Your task to perform on an android device: Search for seafood restaurants on Google Maps Image 0: 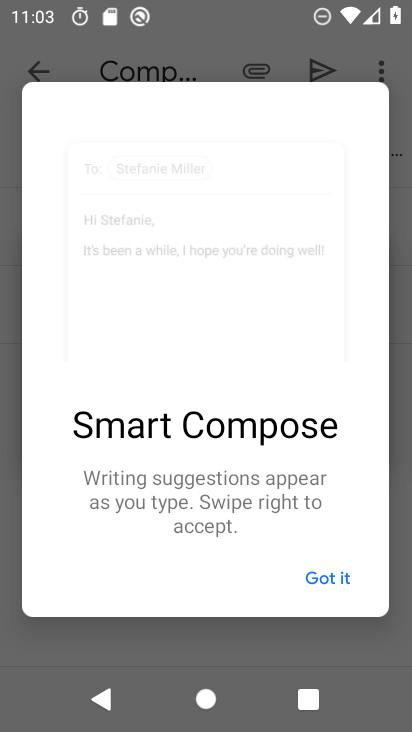
Step 0: press home button
Your task to perform on an android device: Search for seafood restaurants on Google Maps Image 1: 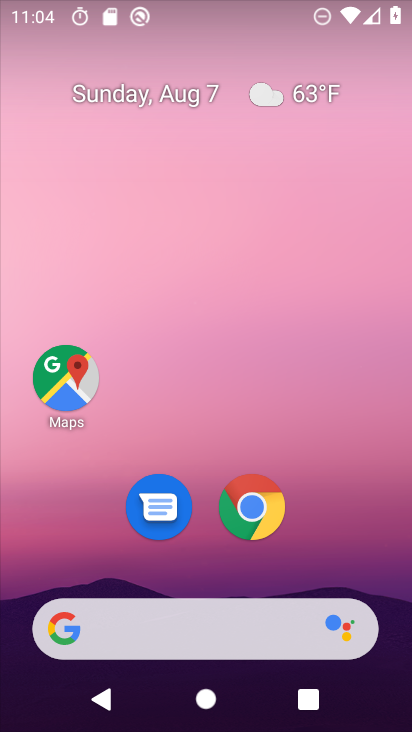
Step 1: drag from (350, 502) to (249, 27)
Your task to perform on an android device: Search for seafood restaurants on Google Maps Image 2: 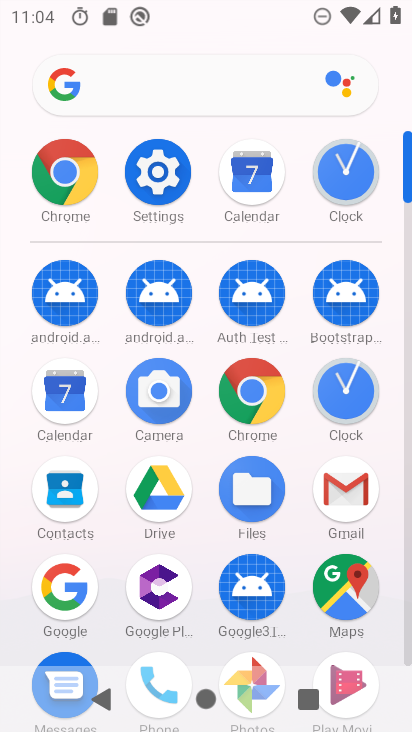
Step 2: click (337, 588)
Your task to perform on an android device: Search for seafood restaurants on Google Maps Image 3: 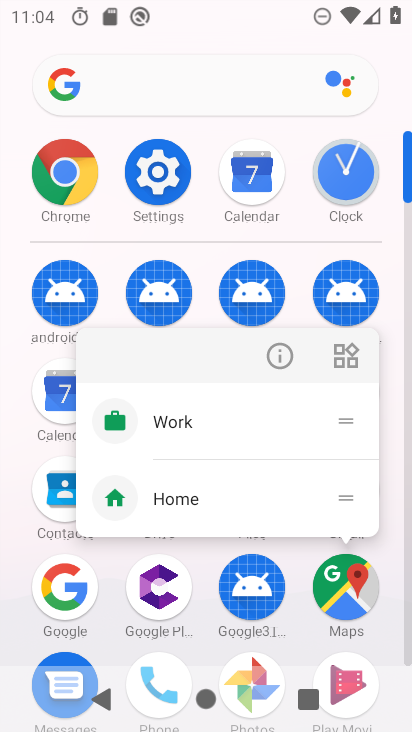
Step 3: click (355, 579)
Your task to perform on an android device: Search for seafood restaurants on Google Maps Image 4: 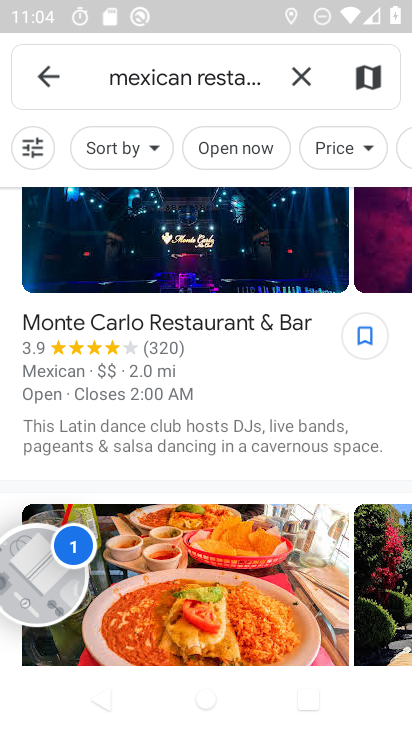
Step 4: click (307, 69)
Your task to perform on an android device: Search for seafood restaurants on Google Maps Image 5: 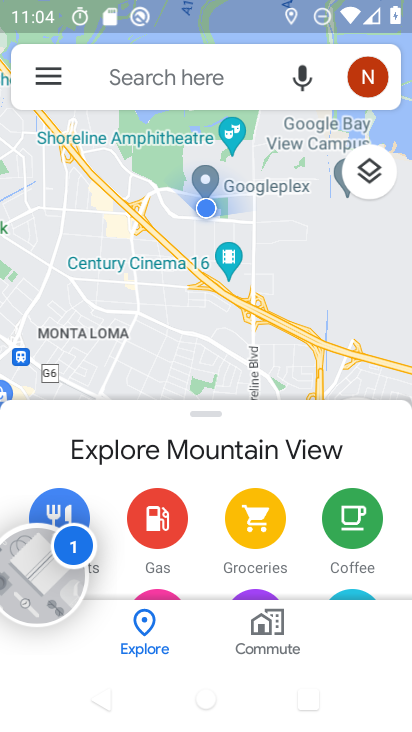
Step 5: click (234, 71)
Your task to perform on an android device: Search for seafood restaurants on Google Maps Image 6: 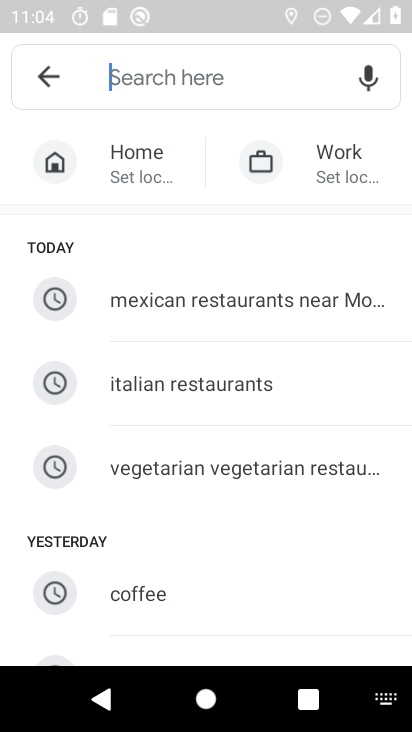
Step 6: type "seafood restaurants"
Your task to perform on an android device: Search for seafood restaurants on Google Maps Image 7: 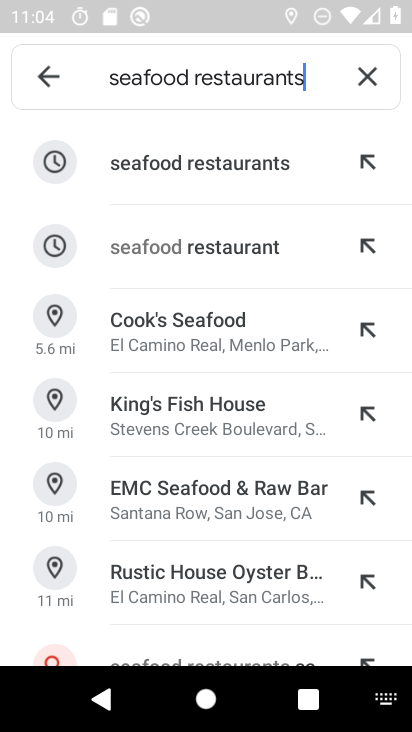
Step 7: type " "
Your task to perform on an android device: Search for seafood restaurants on Google Maps Image 8: 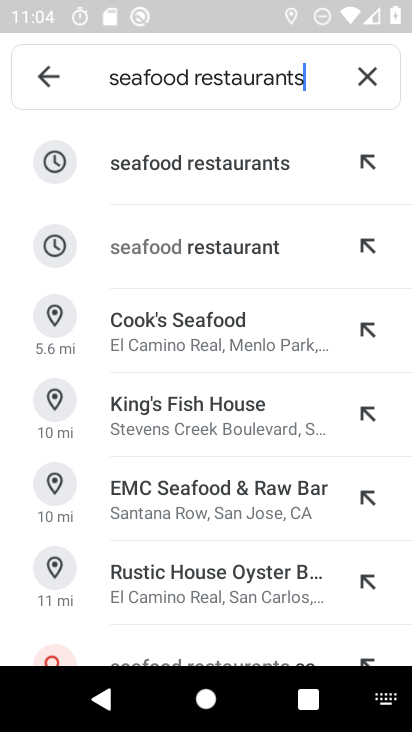
Step 8: click (268, 170)
Your task to perform on an android device: Search for seafood restaurants on Google Maps Image 9: 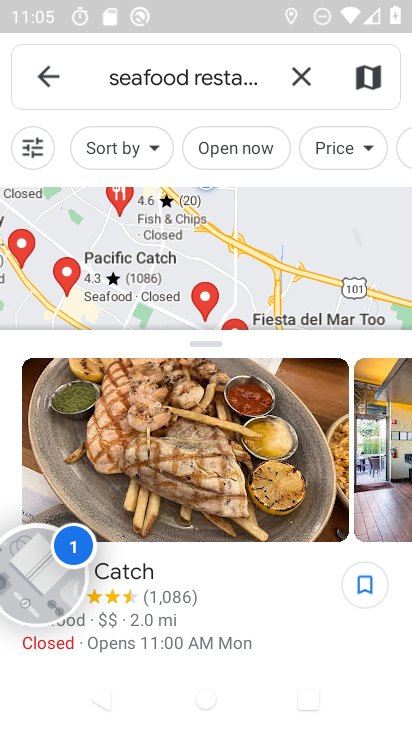
Step 9: task complete